Your task to perform on an android device: Go to accessibility settings Image 0: 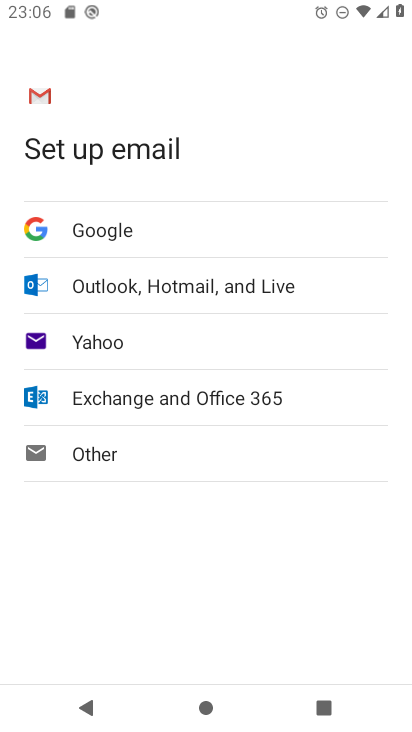
Step 0: press home button
Your task to perform on an android device: Go to accessibility settings Image 1: 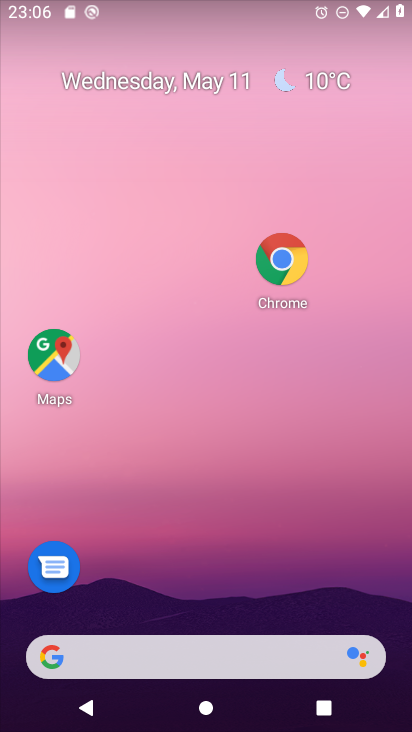
Step 1: drag from (152, 666) to (250, 200)
Your task to perform on an android device: Go to accessibility settings Image 2: 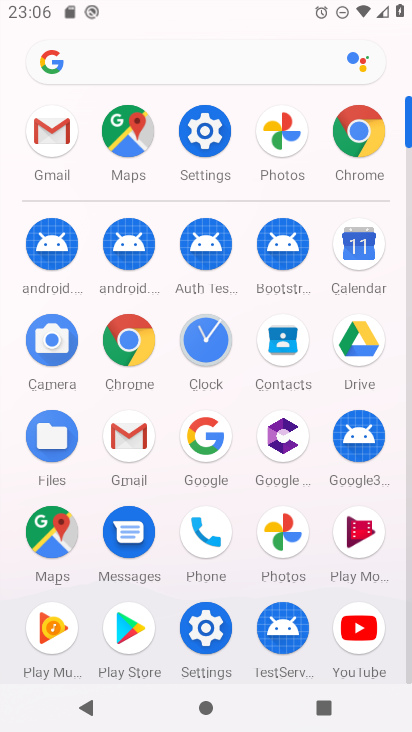
Step 2: click (200, 138)
Your task to perform on an android device: Go to accessibility settings Image 3: 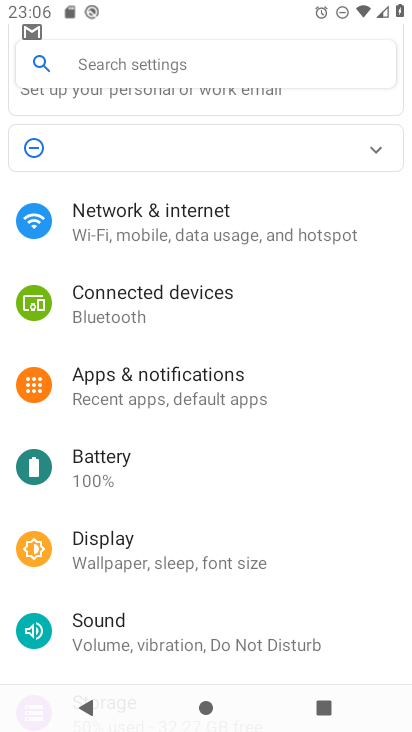
Step 3: drag from (227, 593) to (316, 82)
Your task to perform on an android device: Go to accessibility settings Image 4: 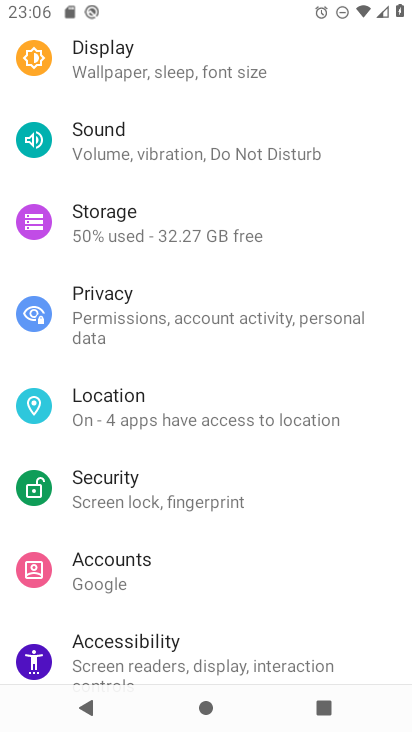
Step 4: click (159, 643)
Your task to perform on an android device: Go to accessibility settings Image 5: 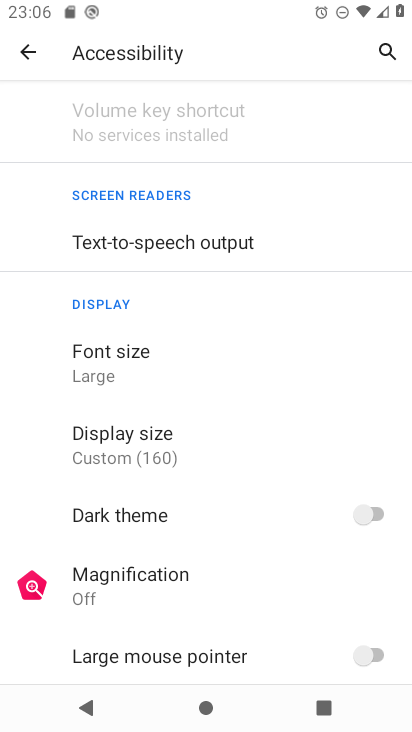
Step 5: task complete